Your task to perform on an android device: Open settings Image 0: 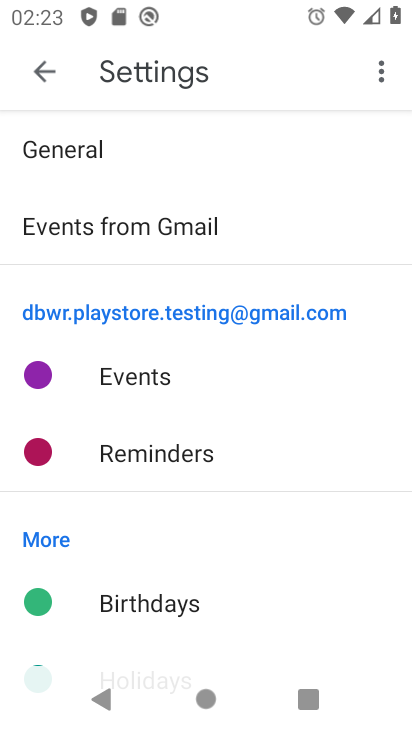
Step 0: press home button
Your task to perform on an android device: Open settings Image 1: 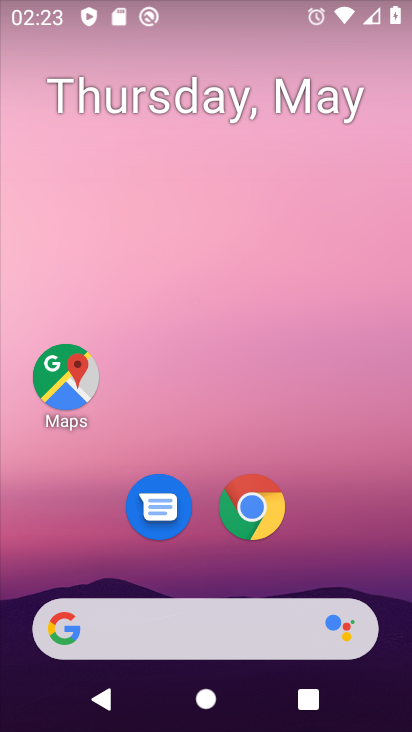
Step 1: drag from (364, 509) to (255, 168)
Your task to perform on an android device: Open settings Image 2: 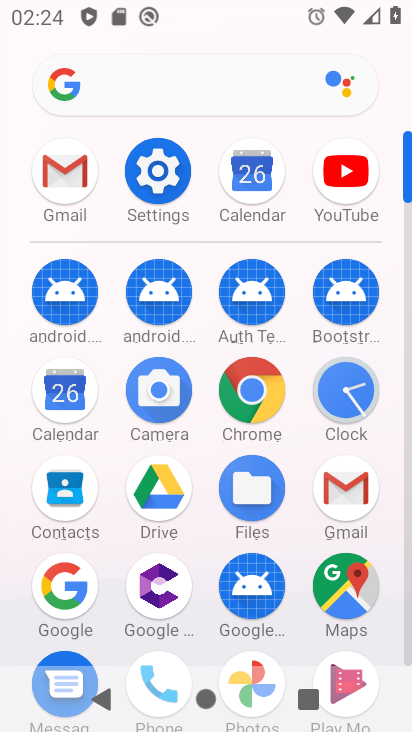
Step 2: click (173, 204)
Your task to perform on an android device: Open settings Image 3: 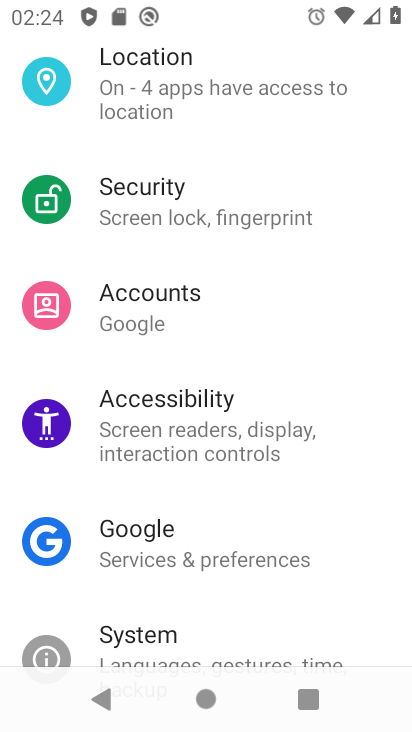
Step 3: task complete